Your task to perform on an android device: Open the Play Movies app and select the watchlist tab. Image 0: 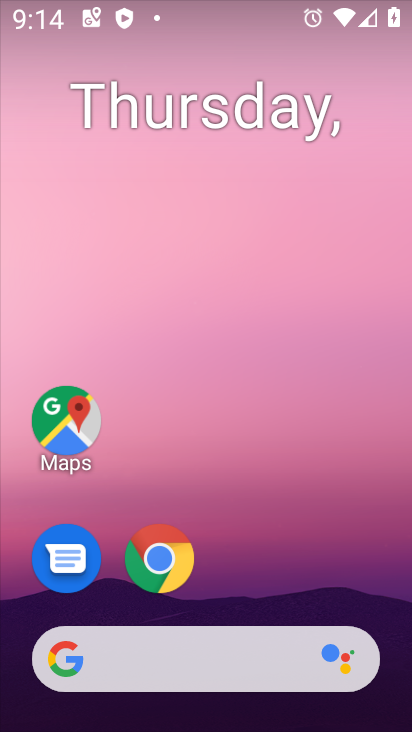
Step 0: drag from (362, 548) to (366, 237)
Your task to perform on an android device: Open the Play Movies app and select the watchlist tab. Image 1: 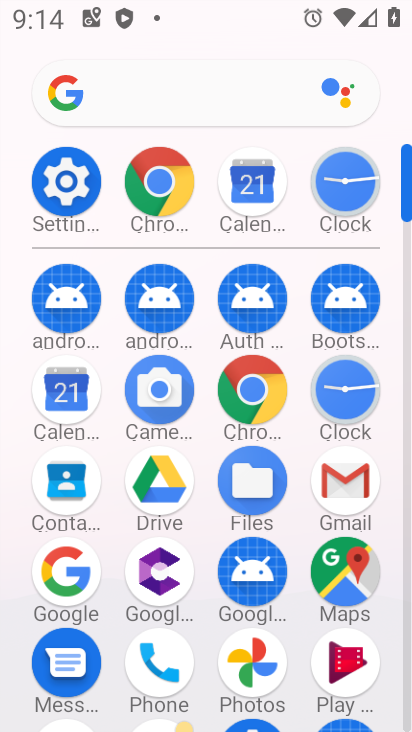
Step 1: click (352, 654)
Your task to perform on an android device: Open the Play Movies app and select the watchlist tab. Image 2: 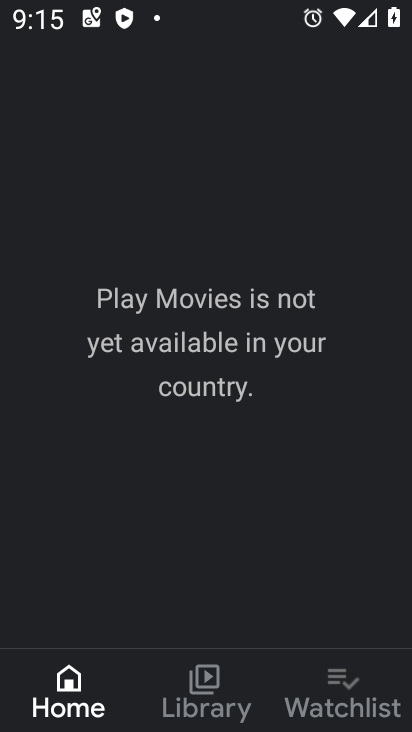
Step 2: click (365, 697)
Your task to perform on an android device: Open the Play Movies app and select the watchlist tab. Image 3: 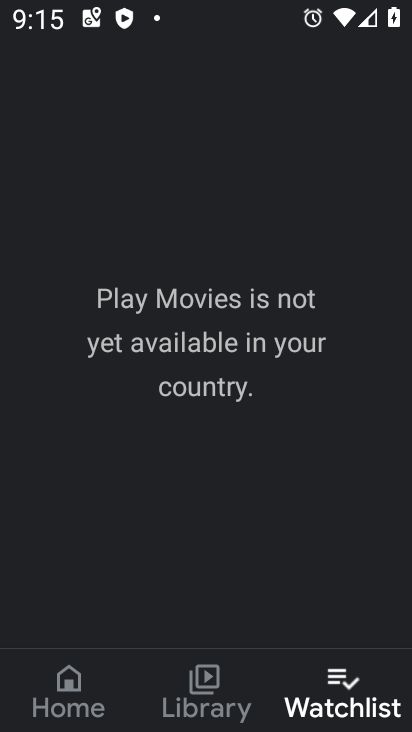
Step 3: task complete